Your task to perform on an android device: delete location history Image 0: 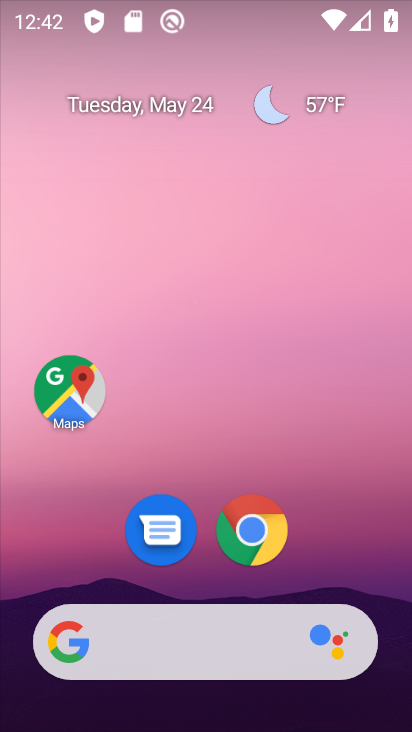
Step 0: drag from (80, 531) to (143, 145)
Your task to perform on an android device: delete location history Image 1: 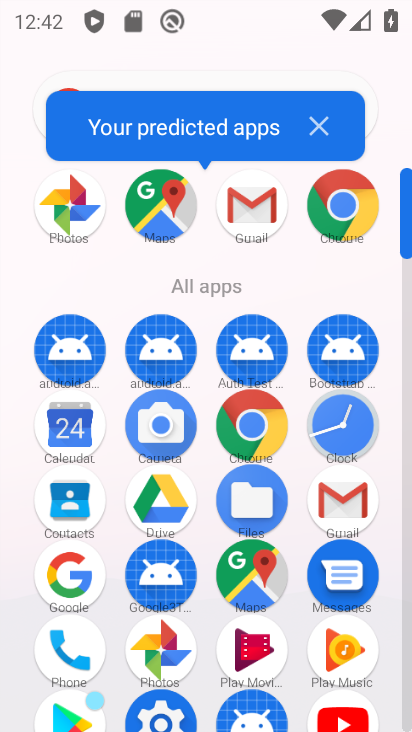
Step 1: drag from (183, 630) to (250, 409)
Your task to perform on an android device: delete location history Image 2: 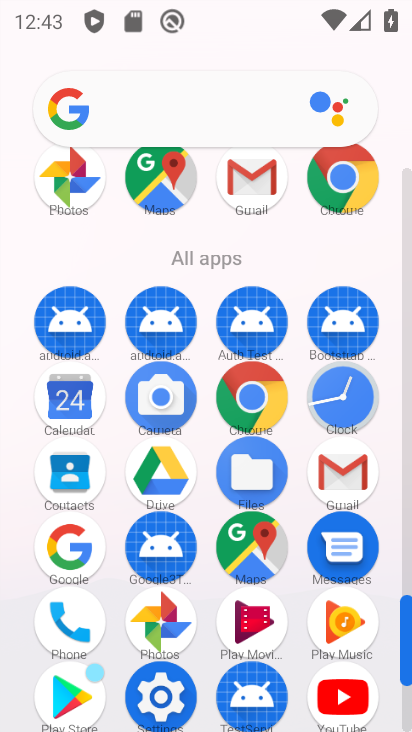
Step 2: click (150, 707)
Your task to perform on an android device: delete location history Image 3: 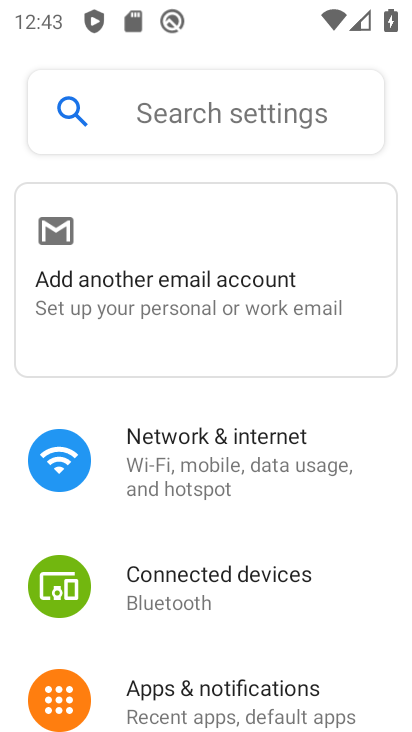
Step 3: drag from (121, 685) to (346, 238)
Your task to perform on an android device: delete location history Image 4: 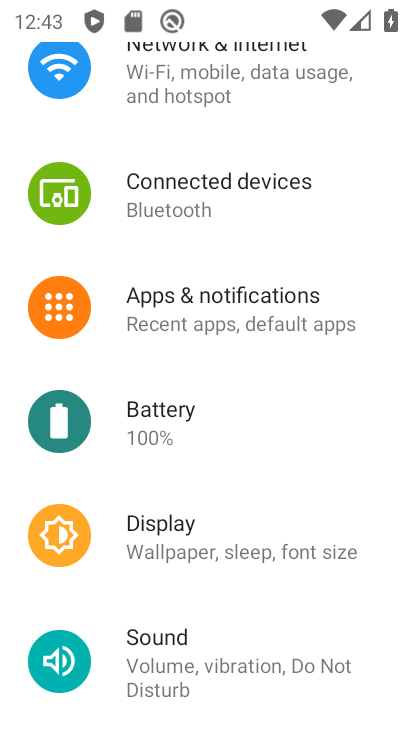
Step 4: drag from (230, 629) to (345, 246)
Your task to perform on an android device: delete location history Image 5: 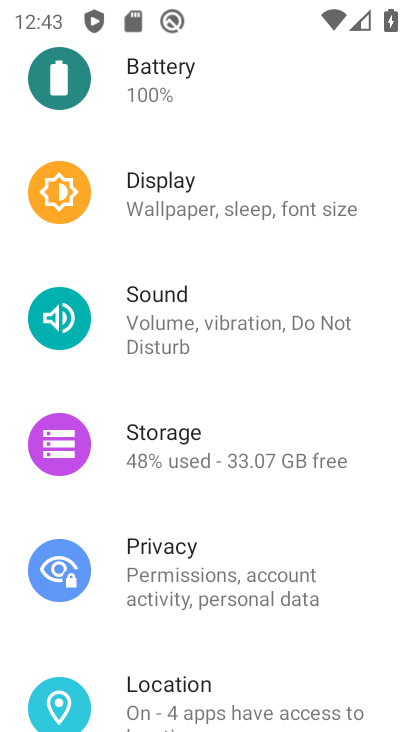
Step 5: drag from (207, 669) to (265, 493)
Your task to perform on an android device: delete location history Image 6: 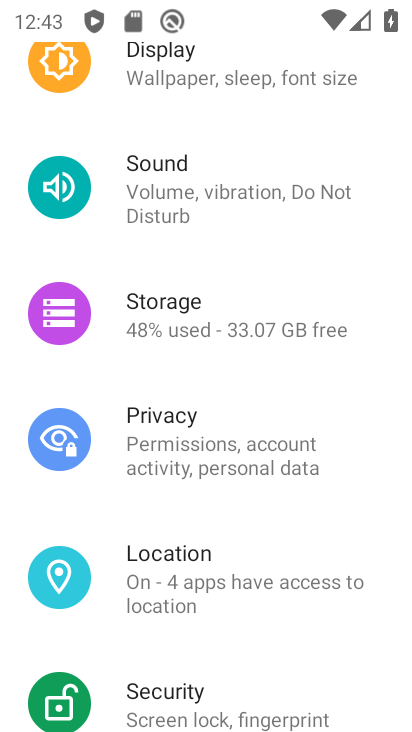
Step 6: click (178, 593)
Your task to perform on an android device: delete location history Image 7: 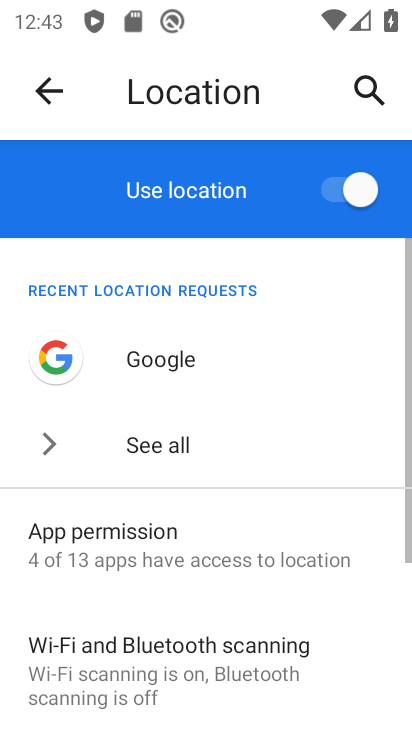
Step 7: drag from (206, 684) to (338, 381)
Your task to perform on an android device: delete location history Image 8: 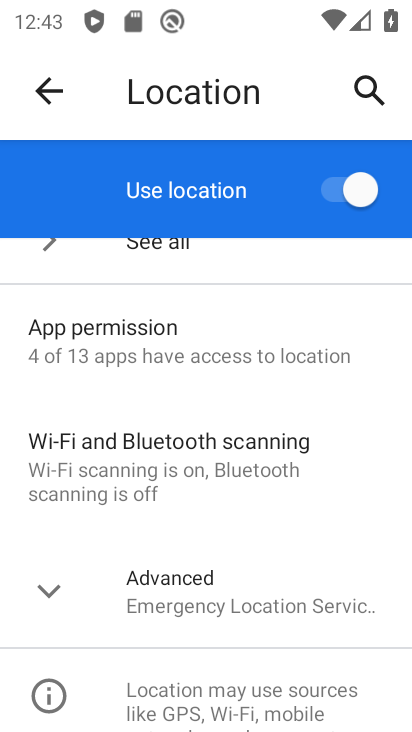
Step 8: click (225, 610)
Your task to perform on an android device: delete location history Image 9: 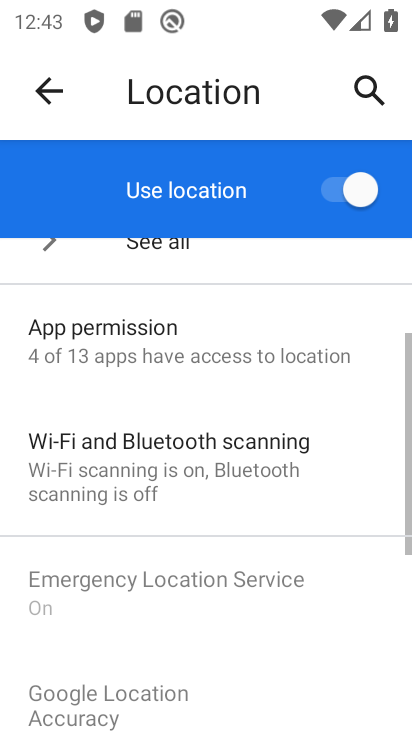
Step 9: drag from (248, 645) to (383, 372)
Your task to perform on an android device: delete location history Image 10: 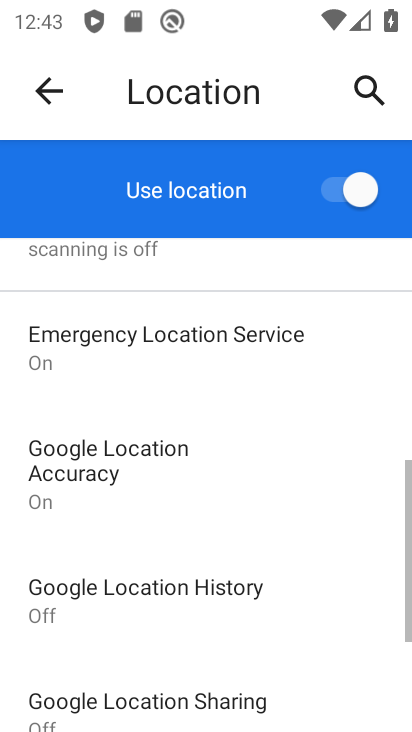
Step 10: click (245, 602)
Your task to perform on an android device: delete location history Image 11: 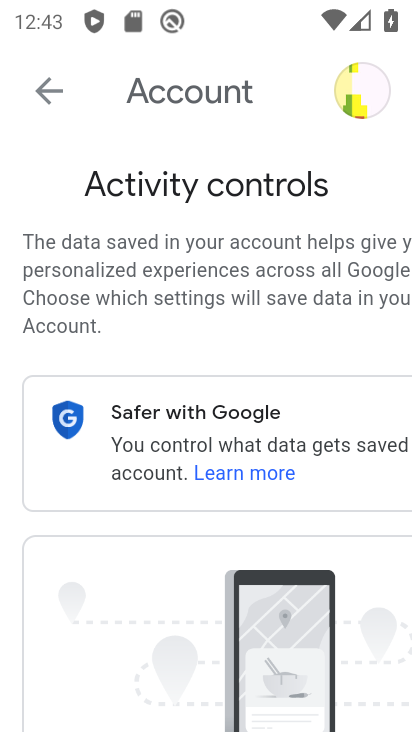
Step 11: drag from (225, 639) to (362, 240)
Your task to perform on an android device: delete location history Image 12: 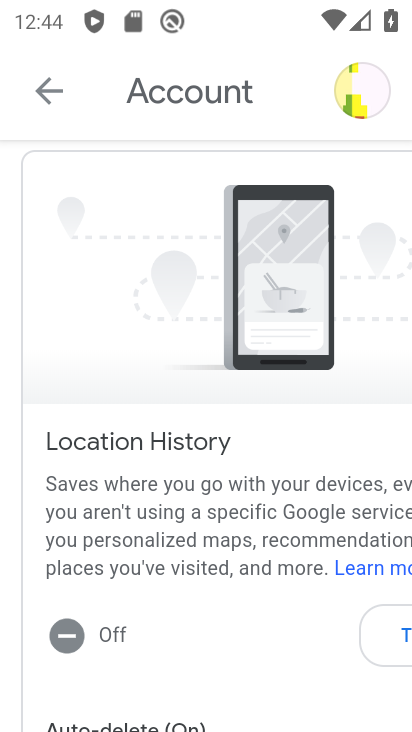
Step 12: drag from (193, 634) to (355, 216)
Your task to perform on an android device: delete location history Image 13: 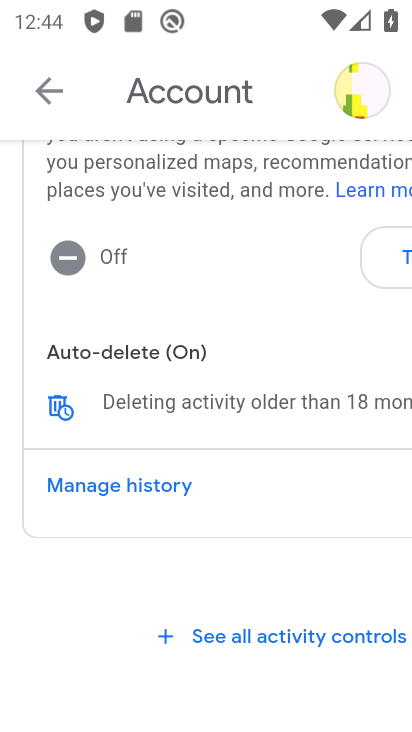
Step 13: click (171, 487)
Your task to perform on an android device: delete location history Image 14: 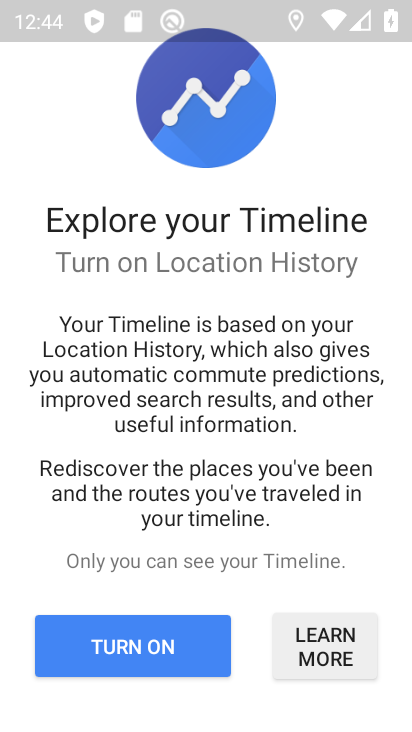
Step 14: click (175, 656)
Your task to perform on an android device: delete location history Image 15: 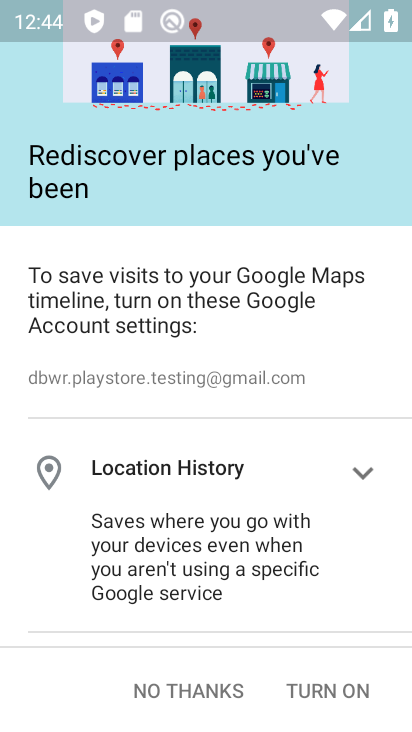
Step 15: click (228, 690)
Your task to perform on an android device: delete location history Image 16: 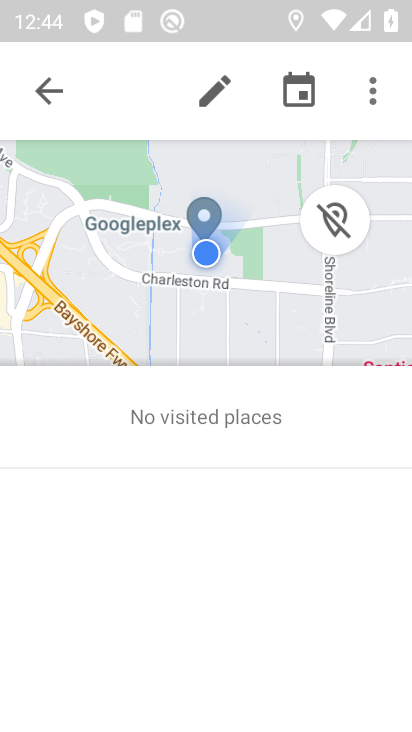
Step 16: click (386, 104)
Your task to perform on an android device: delete location history Image 17: 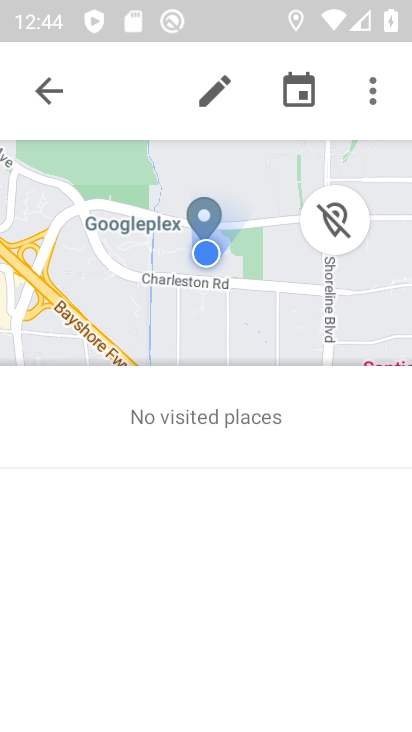
Step 17: task complete